Your task to perform on an android device: set default search engine in the chrome app Image 0: 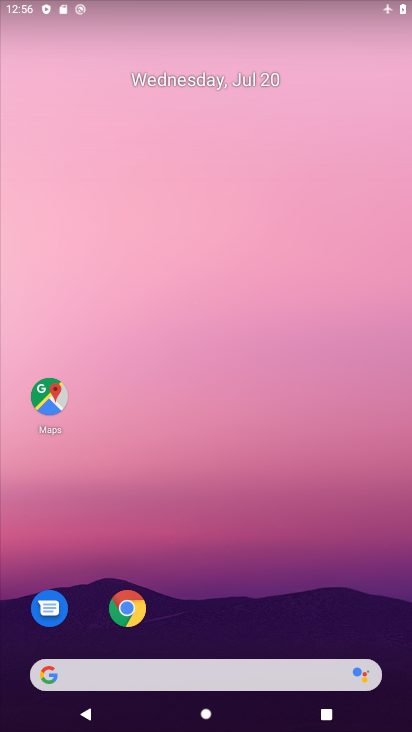
Step 0: drag from (215, 654) to (267, 143)
Your task to perform on an android device: set default search engine in the chrome app Image 1: 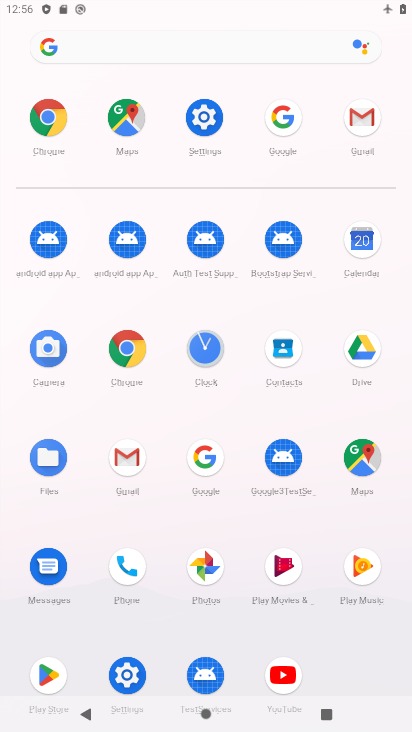
Step 1: click (128, 357)
Your task to perform on an android device: set default search engine in the chrome app Image 2: 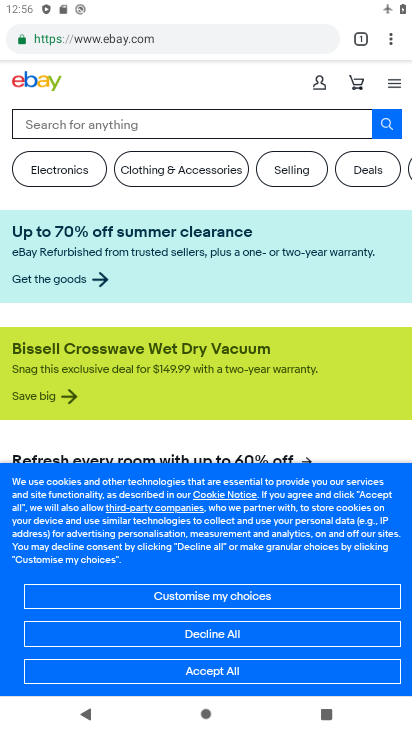
Step 2: click (389, 44)
Your task to perform on an android device: set default search engine in the chrome app Image 3: 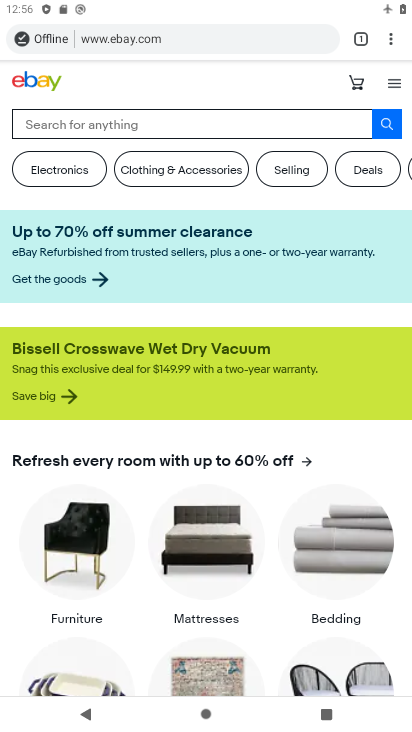
Step 3: click (388, 37)
Your task to perform on an android device: set default search engine in the chrome app Image 4: 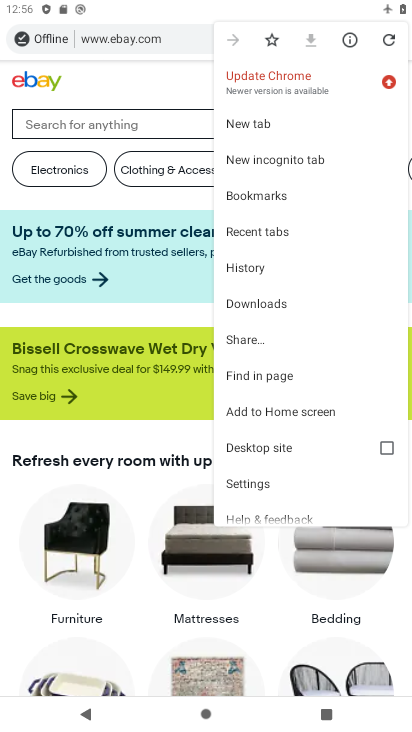
Step 4: click (245, 482)
Your task to perform on an android device: set default search engine in the chrome app Image 5: 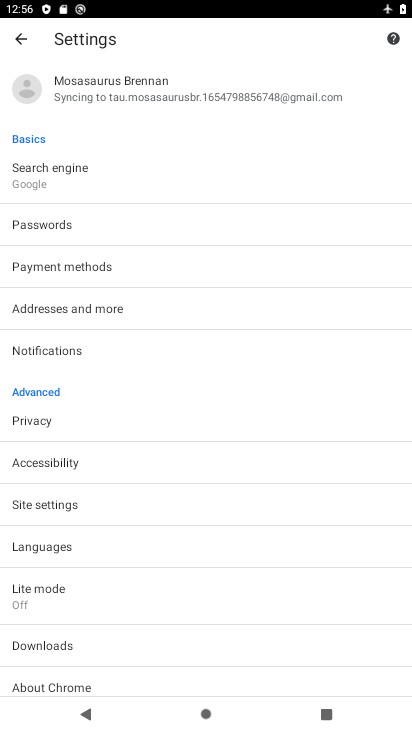
Step 5: click (44, 178)
Your task to perform on an android device: set default search engine in the chrome app Image 6: 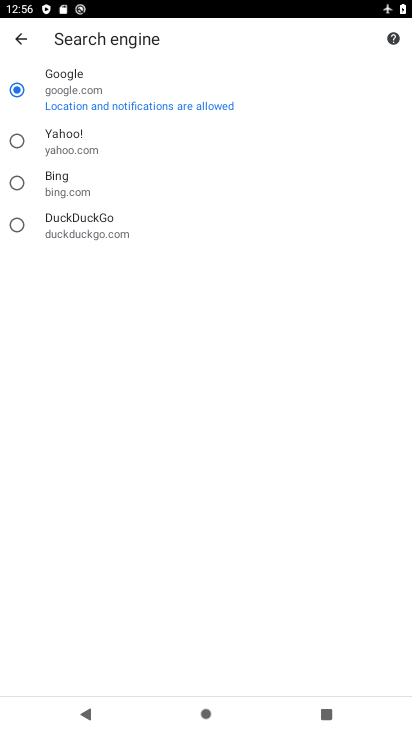
Step 6: task complete